Your task to perform on an android device: Open the phone app and click the voicemail tab. Image 0: 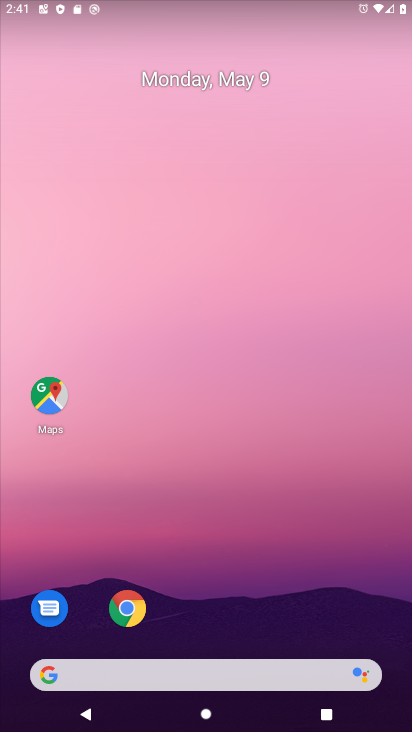
Step 0: drag from (220, 626) to (237, 111)
Your task to perform on an android device: Open the phone app and click the voicemail tab. Image 1: 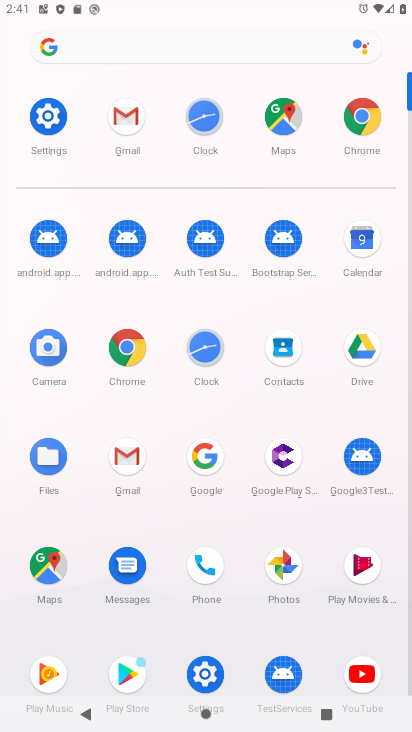
Step 1: click (202, 565)
Your task to perform on an android device: Open the phone app and click the voicemail tab. Image 2: 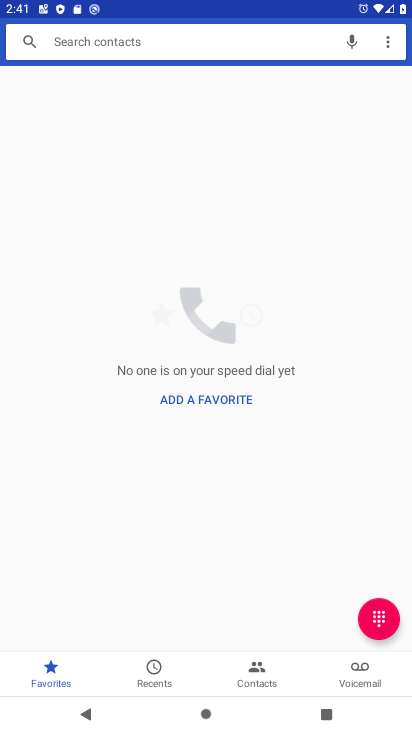
Step 2: click (371, 688)
Your task to perform on an android device: Open the phone app and click the voicemail tab. Image 3: 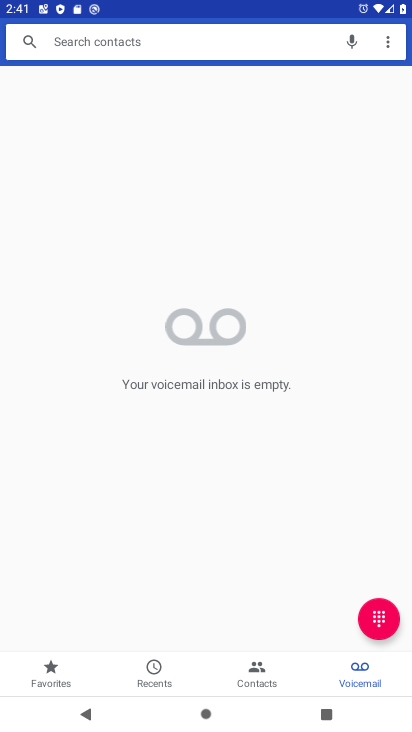
Step 3: task complete